Your task to perform on an android device: turn off priority inbox in the gmail app Image 0: 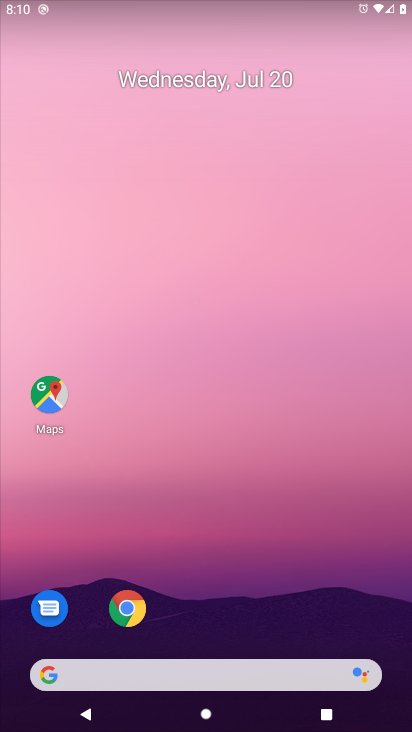
Step 0: drag from (226, 580) to (304, 72)
Your task to perform on an android device: turn off priority inbox in the gmail app Image 1: 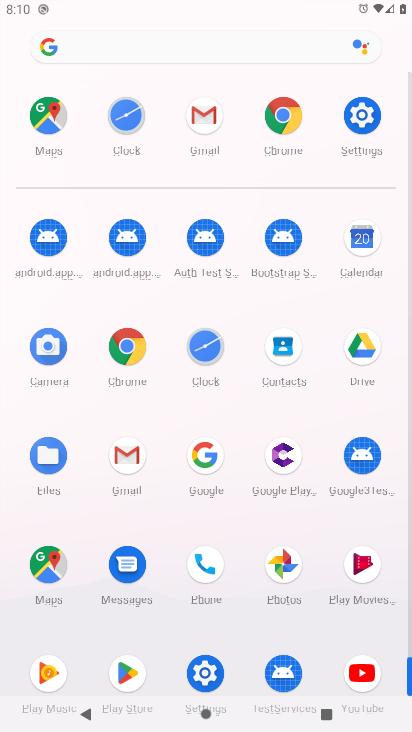
Step 1: click (131, 449)
Your task to perform on an android device: turn off priority inbox in the gmail app Image 2: 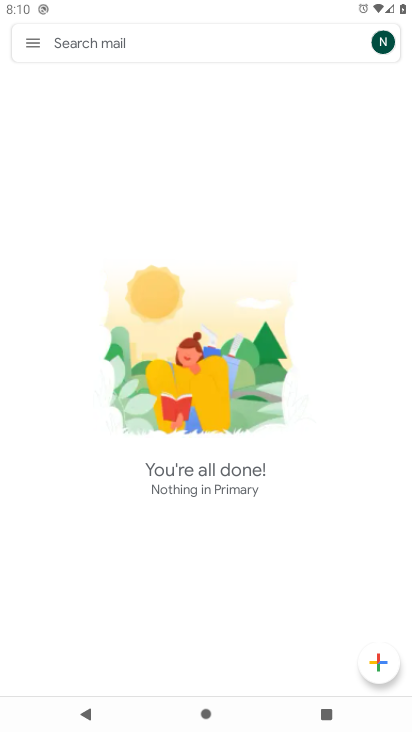
Step 2: click (27, 44)
Your task to perform on an android device: turn off priority inbox in the gmail app Image 3: 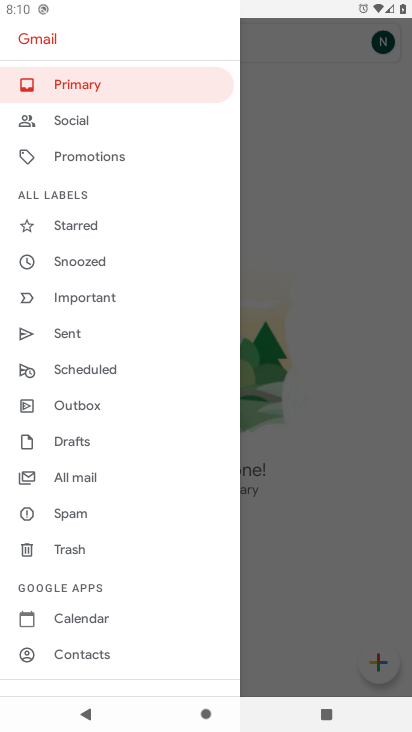
Step 3: drag from (117, 528) to (158, 230)
Your task to perform on an android device: turn off priority inbox in the gmail app Image 4: 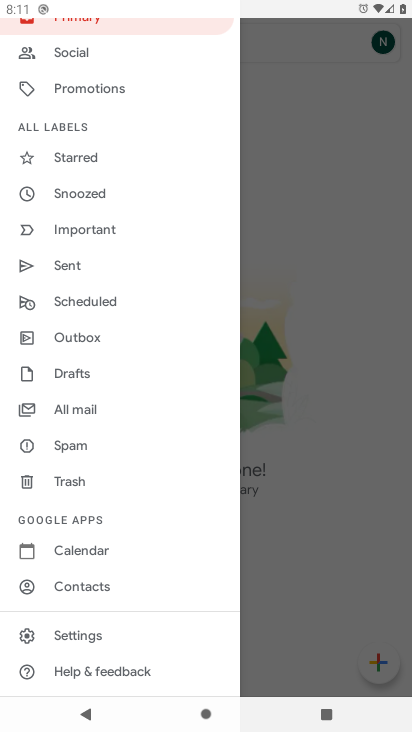
Step 4: click (86, 637)
Your task to perform on an android device: turn off priority inbox in the gmail app Image 5: 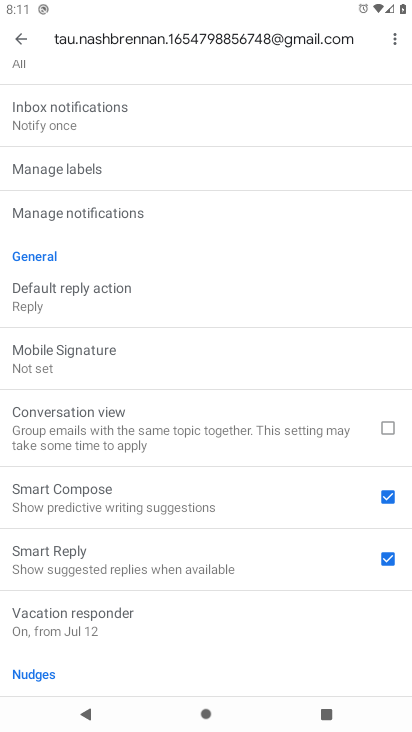
Step 5: drag from (77, 143) to (89, 579)
Your task to perform on an android device: turn off priority inbox in the gmail app Image 6: 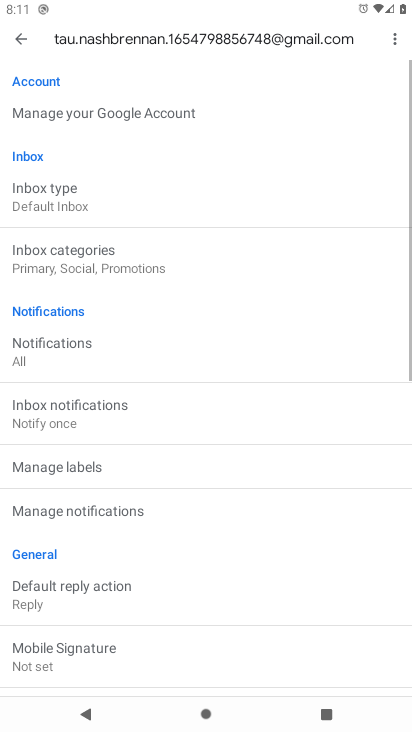
Step 6: click (47, 203)
Your task to perform on an android device: turn off priority inbox in the gmail app Image 7: 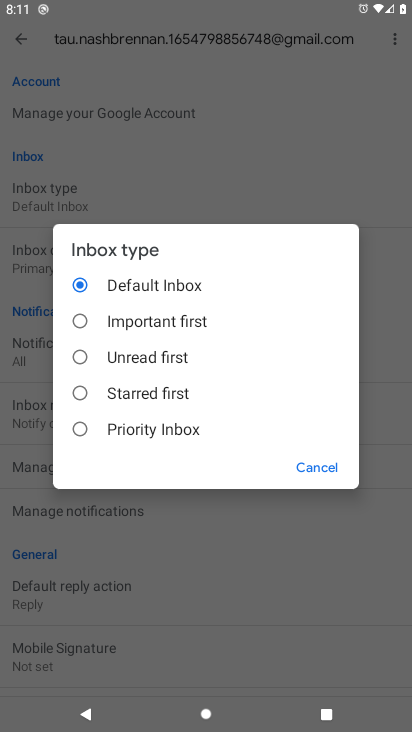
Step 7: click (110, 434)
Your task to perform on an android device: turn off priority inbox in the gmail app Image 8: 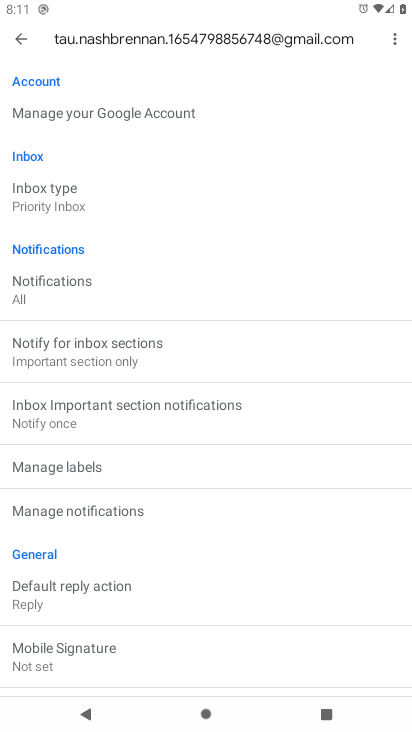
Step 8: task complete